Your task to perform on an android device: star an email in the gmail app Image 0: 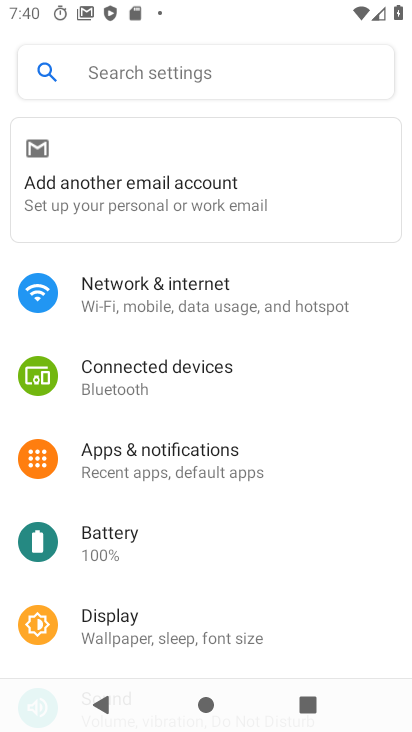
Step 0: press home button
Your task to perform on an android device: star an email in the gmail app Image 1: 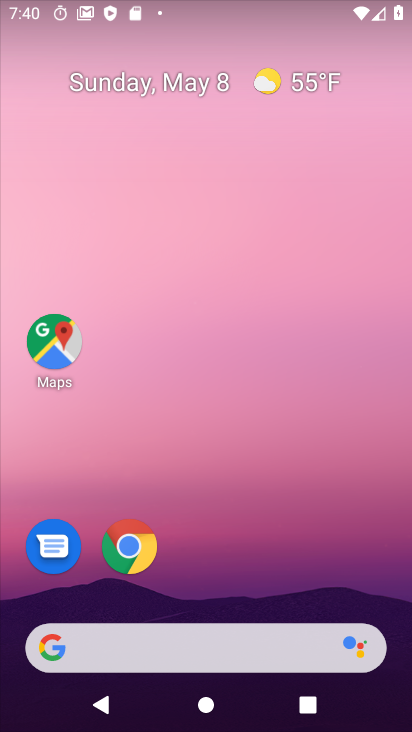
Step 1: drag from (232, 564) to (225, 25)
Your task to perform on an android device: star an email in the gmail app Image 2: 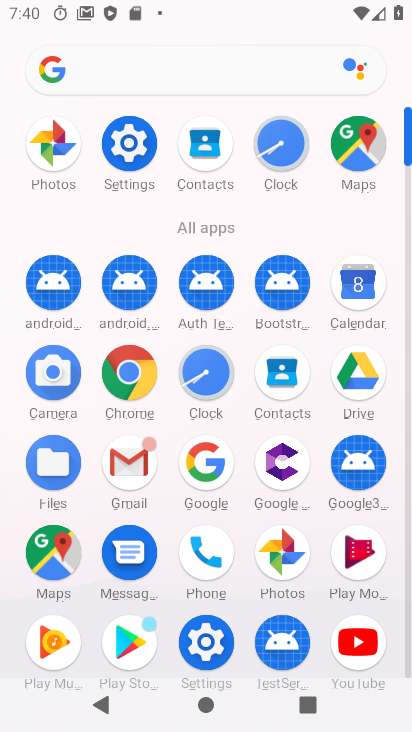
Step 2: click (118, 455)
Your task to perform on an android device: star an email in the gmail app Image 3: 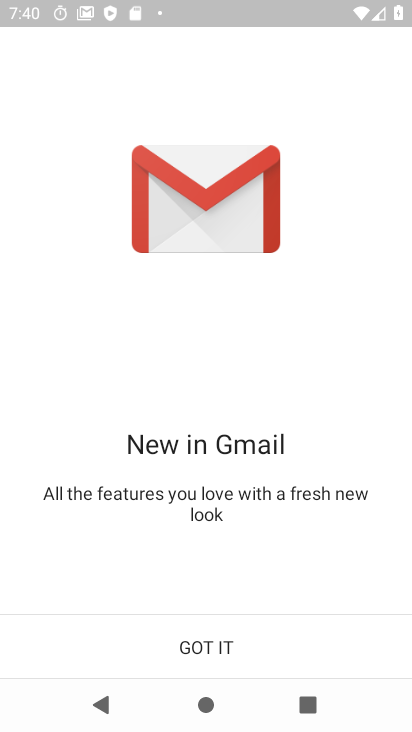
Step 3: click (192, 651)
Your task to perform on an android device: star an email in the gmail app Image 4: 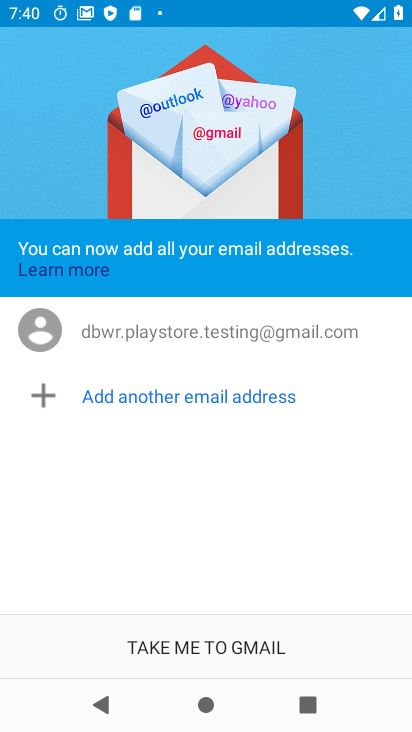
Step 4: click (197, 641)
Your task to perform on an android device: star an email in the gmail app Image 5: 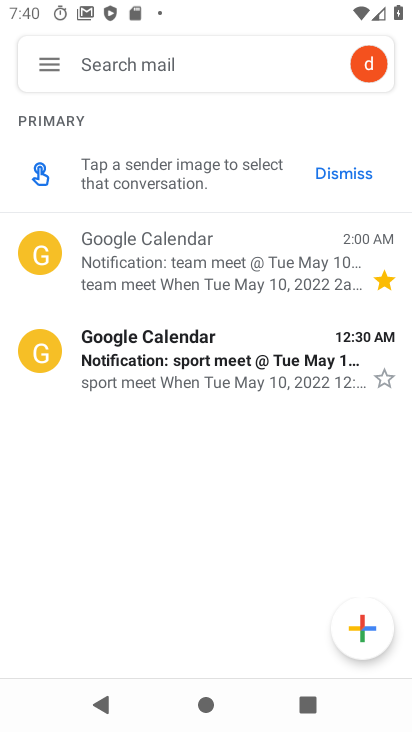
Step 5: click (386, 375)
Your task to perform on an android device: star an email in the gmail app Image 6: 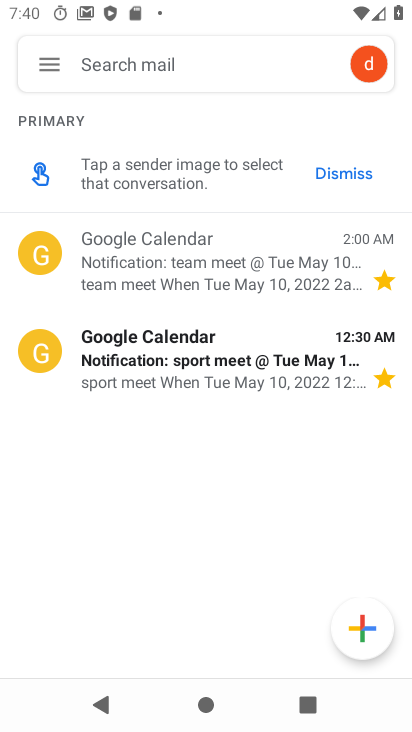
Step 6: task complete